Your task to perform on an android device: toggle javascript in the chrome app Image 0: 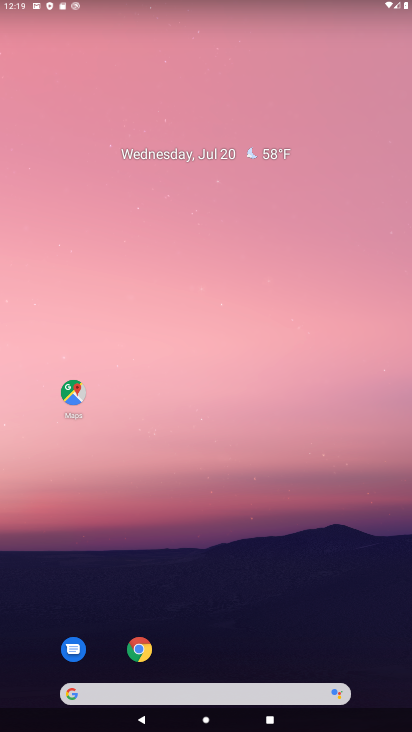
Step 0: click (139, 648)
Your task to perform on an android device: toggle javascript in the chrome app Image 1: 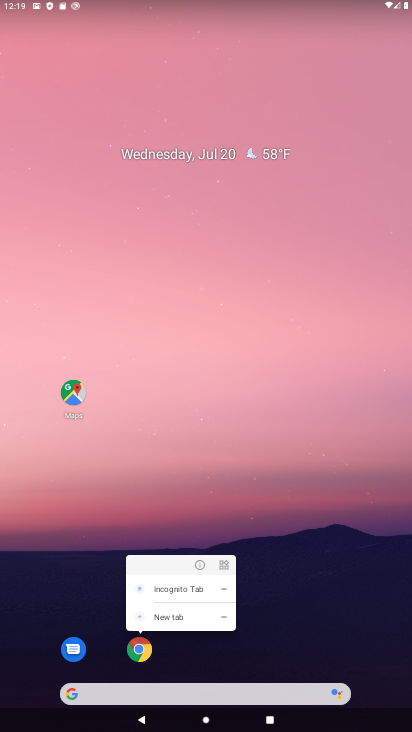
Step 1: click (139, 648)
Your task to perform on an android device: toggle javascript in the chrome app Image 2: 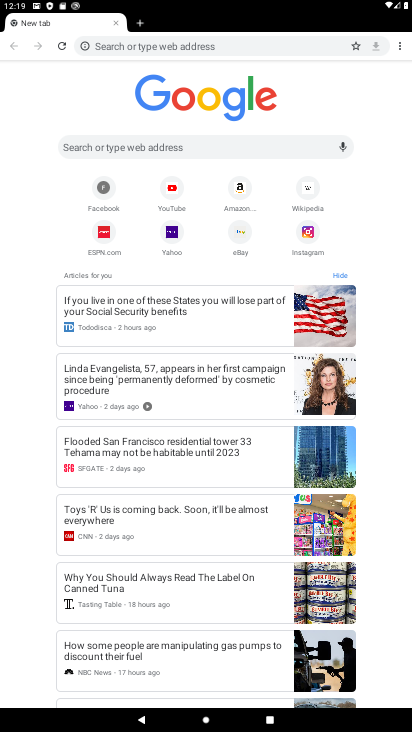
Step 2: click (394, 46)
Your task to perform on an android device: toggle javascript in the chrome app Image 3: 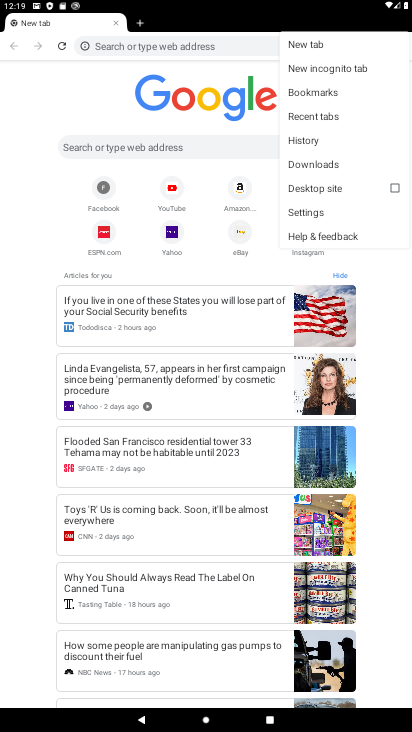
Step 3: click (308, 212)
Your task to perform on an android device: toggle javascript in the chrome app Image 4: 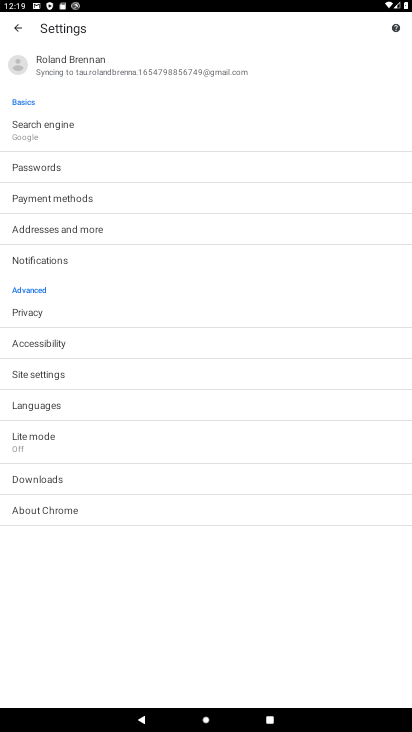
Step 4: click (63, 379)
Your task to perform on an android device: toggle javascript in the chrome app Image 5: 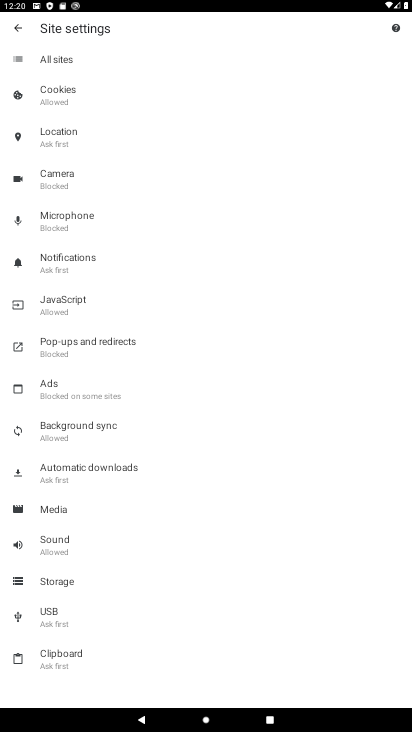
Step 5: click (88, 299)
Your task to perform on an android device: toggle javascript in the chrome app Image 6: 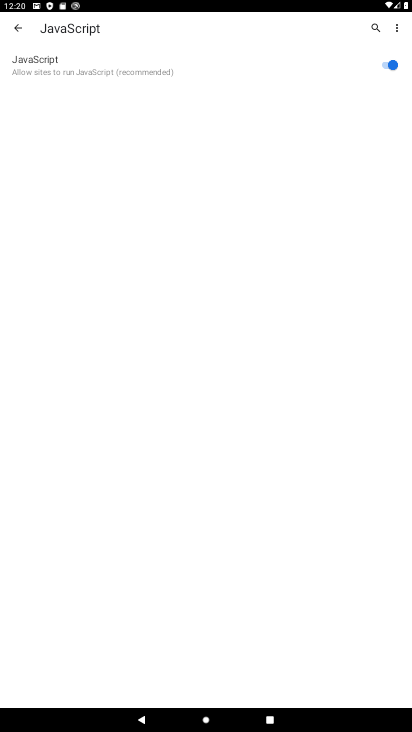
Step 6: click (390, 62)
Your task to perform on an android device: toggle javascript in the chrome app Image 7: 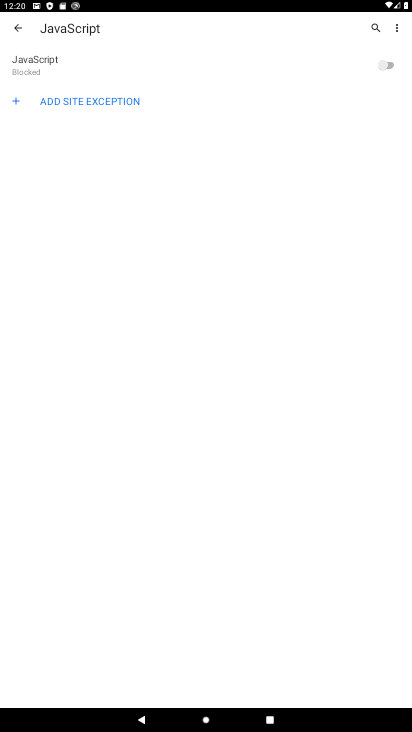
Step 7: task complete